Your task to perform on an android device: create a new album in the google photos Image 0: 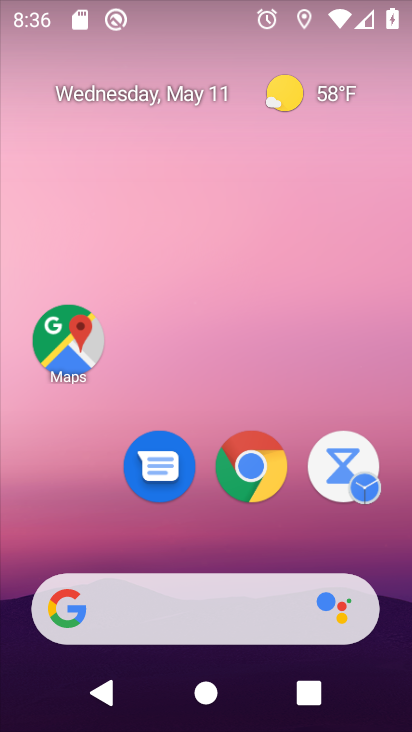
Step 0: drag from (86, 539) to (132, 8)
Your task to perform on an android device: create a new album in the google photos Image 1: 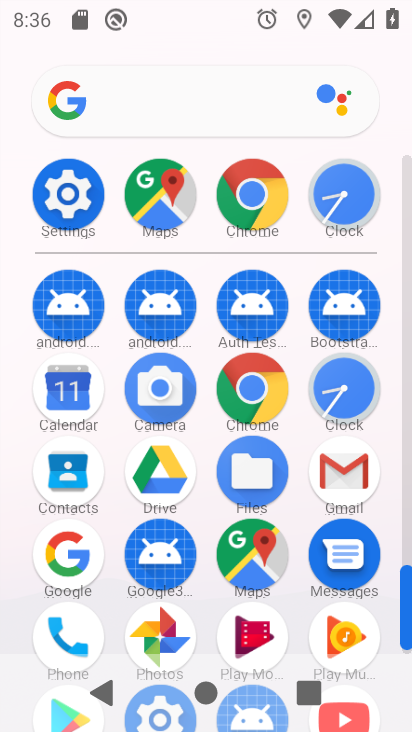
Step 1: click (168, 613)
Your task to perform on an android device: create a new album in the google photos Image 2: 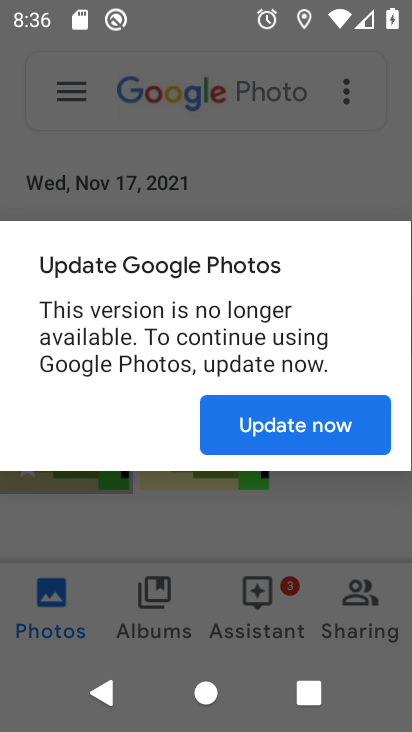
Step 2: click (159, 593)
Your task to perform on an android device: create a new album in the google photos Image 3: 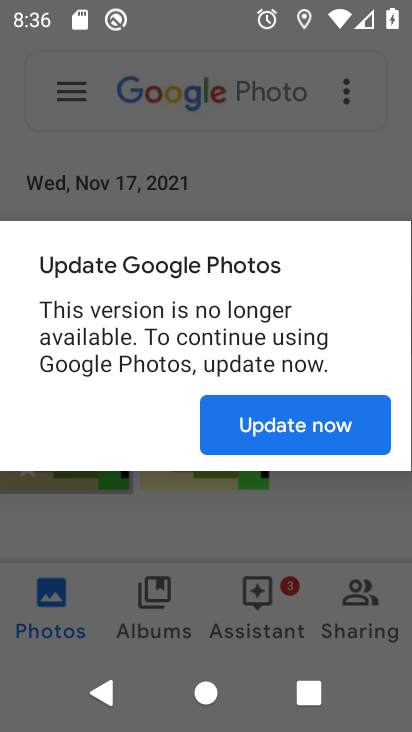
Step 3: click (159, 593)
Your task to perform on an android device: create a new album in the google photos Image 4: 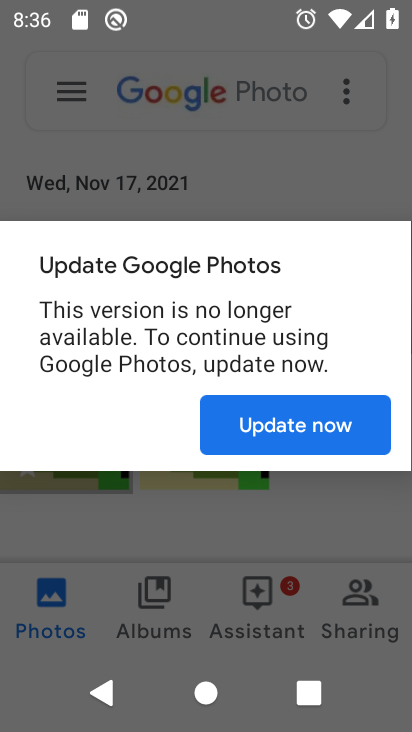
Step 4: press back button
Your task to perform on an android device: create a new album in the google photos Image 5: 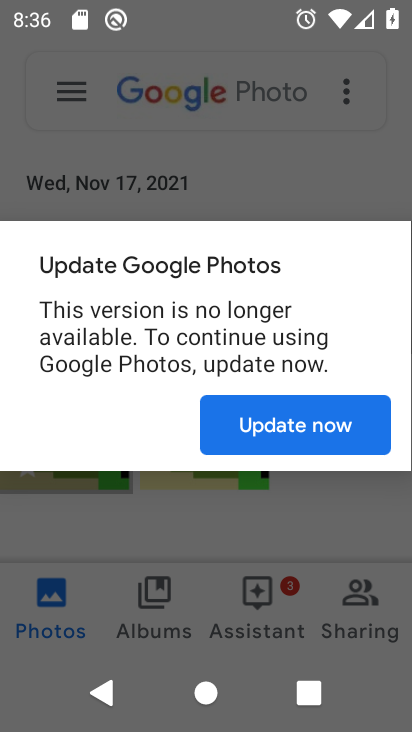
Step 5: click (308, 424)
Your task to perform on an android device: create a new album in the google photos Image 6: 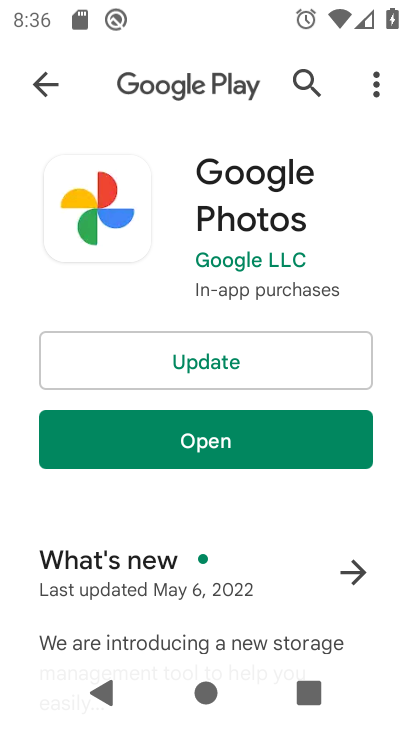
Step 6: click (320, 364)
Your task to perform on an android device: create a new album in the google photos Image 7: 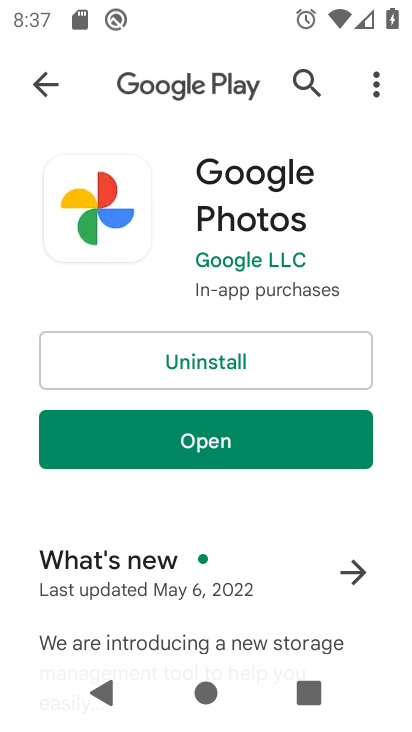
Step 7: click (78, 428)
Your task to perform on an android device: create a new album in the google photos Image 8: 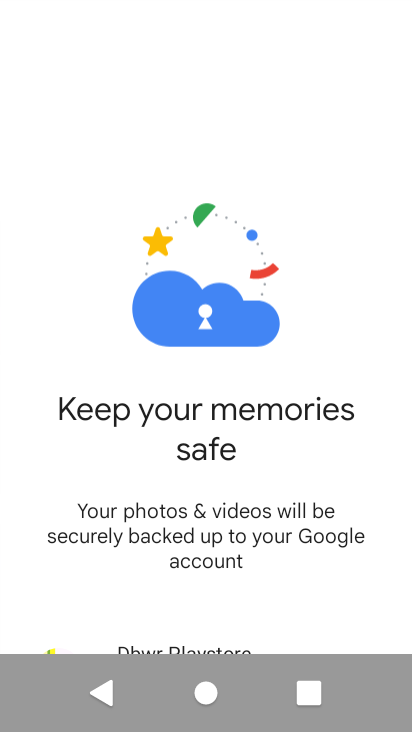
Step 8: drag from (242, 590) to (195, 241)
Your task to perform on an android device: create a new album in the google photos Image 9: 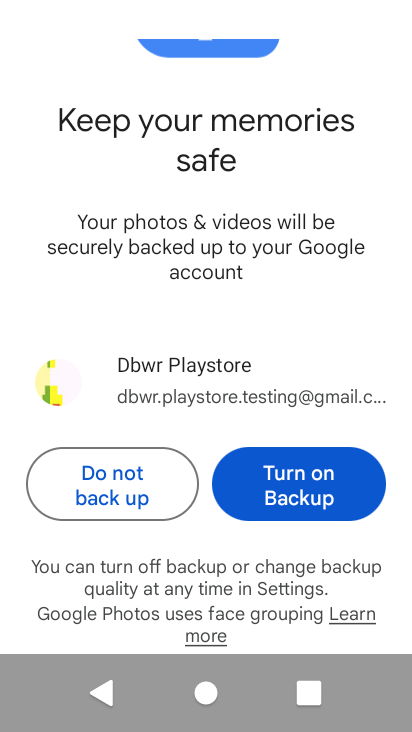
Step 9: click (237, 491)
Your task to perform on an android device: create a new album in the google photos Image 10: 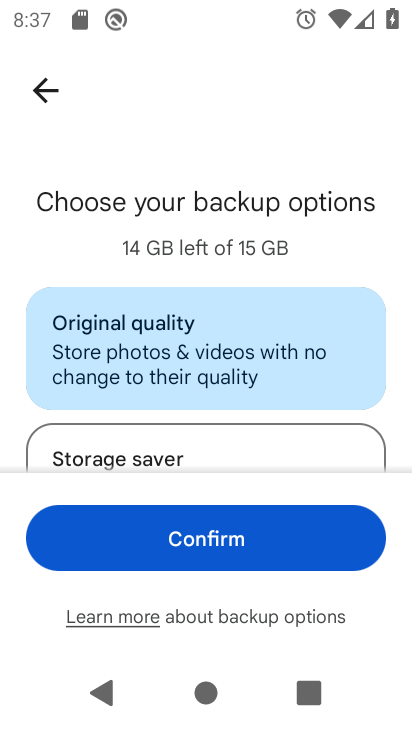
Step 10: click (207, 546)
Your task to perform on an android device: create a new album in the google photos Image 11: 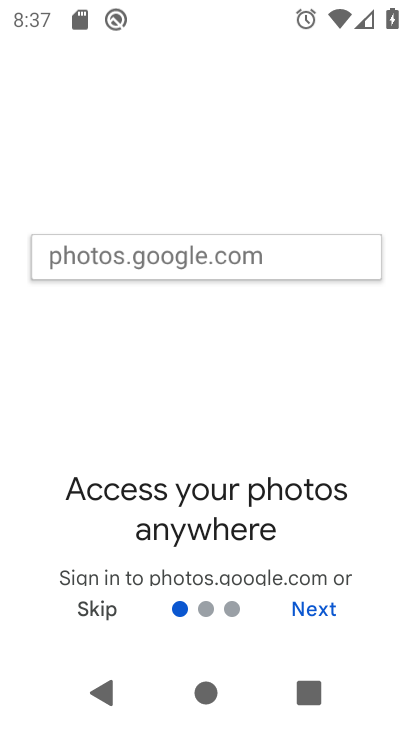
Step 11: click (307, 601)
Your task to perform on an android device: create a new album in the google photos Image 12: 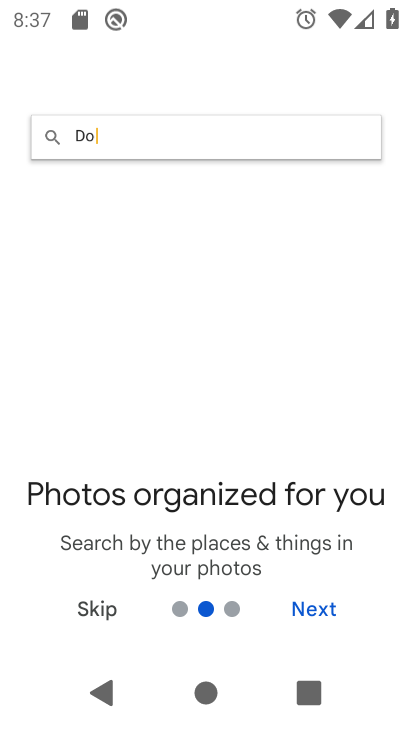
Step 12: click (307, 601)
Your task to perform on an android device: create a new album in the google photos Image 13: 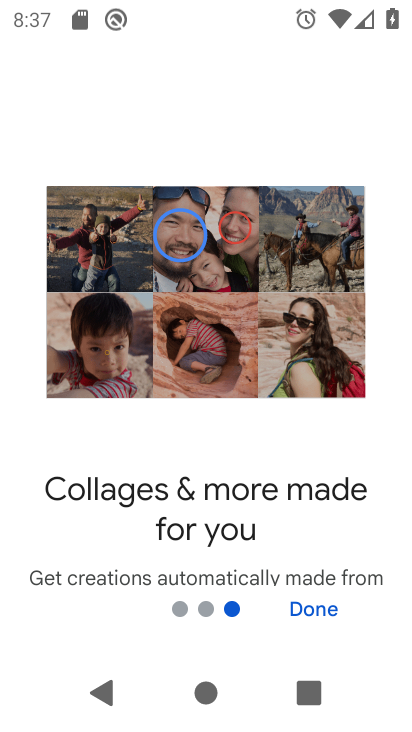
Step 13: click (307, 601)
Your task to perform on an android device: create a new album in the google photos Image 14: 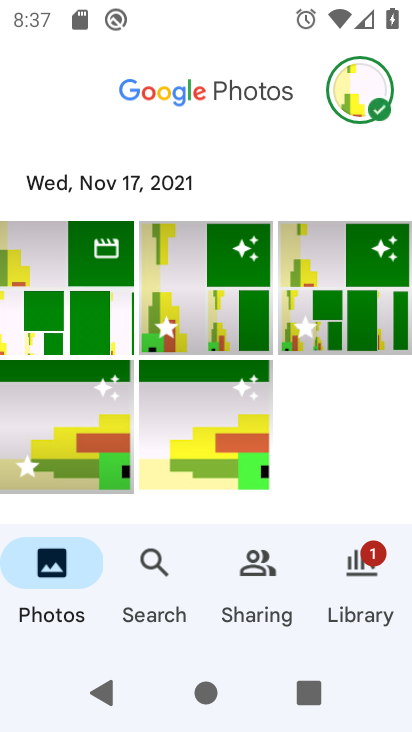
Step 14: click (355, 585)
Your task to perform on an android device: create a new album in the google photos Image 15: 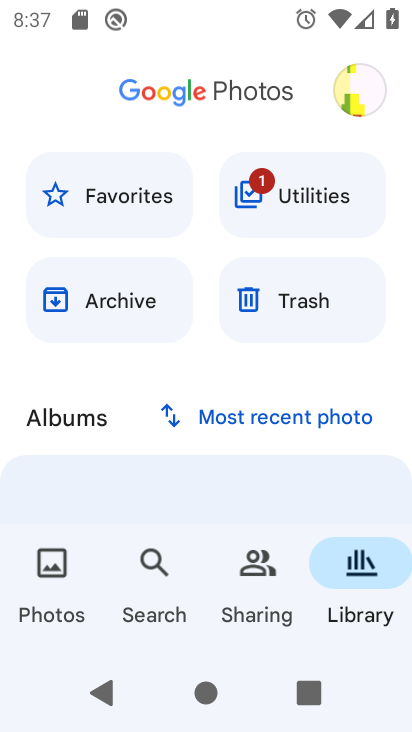
Step 15: drag from (211, 454) to (252, 94)
Your task to perform on an android device: create a new album in the google photos Image 16: 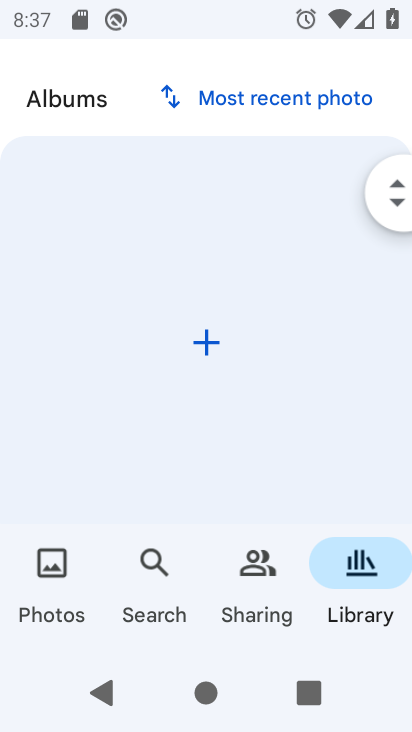
Step 16: click (208, 331)
Your task to perform on an android device: create a new album in the google photos Image 17: 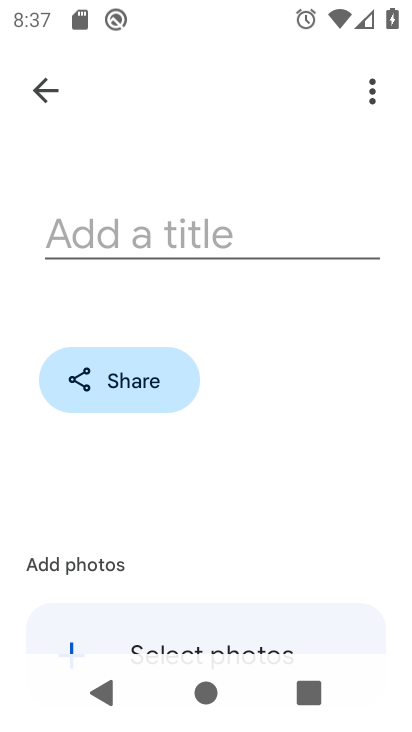
Step 17: click (164, 235)
Your task to perform on an android device: create a new album in the google photos Image 18: 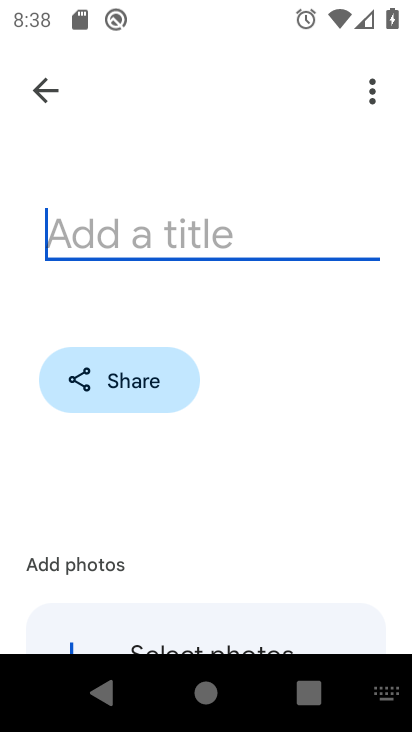
Step 18: type "qpalzmksownxiejdbvhfuryt"
Your task to perform on an android device: create a new album in the google photos Image 19: 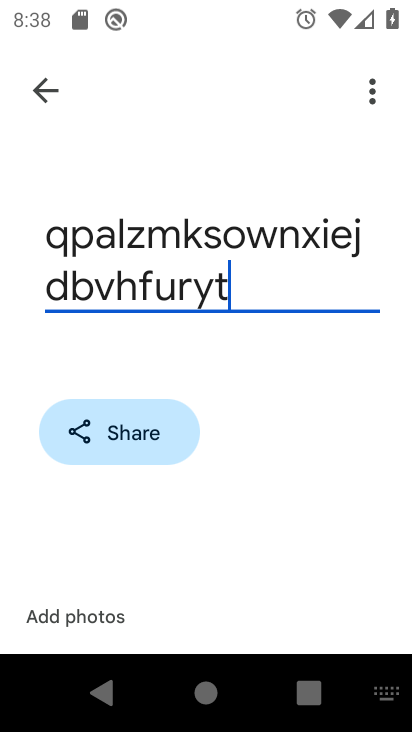
Step 19: drag from (130, 566) to (41, 171)
Your task to perform on an android device: create a new album in the google photos Image 20: 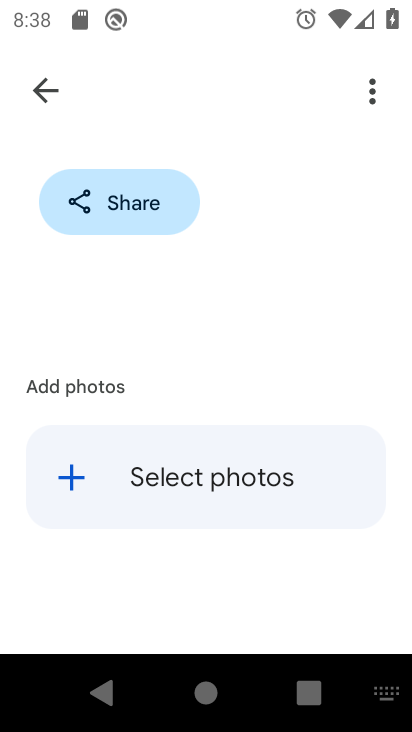
Step 20: click (161, 480)
Your task to perform on an android device: create a new album in the google photos Image 21: 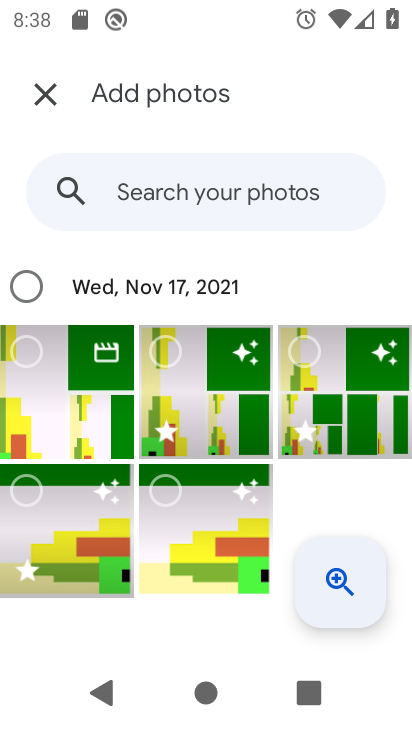
Step 21: click (104, 356)
Your task to perform on an android device: create a new album in the google photos Image 22: 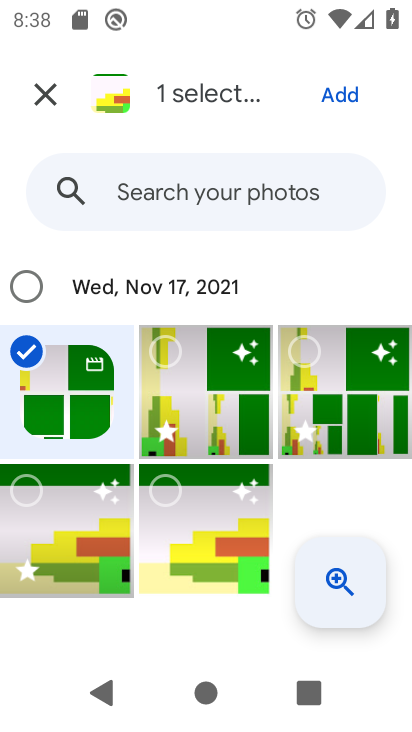
Step 22: click (351, 81)
Your task to perform on an android device: create a new album in the google photos Image 23: 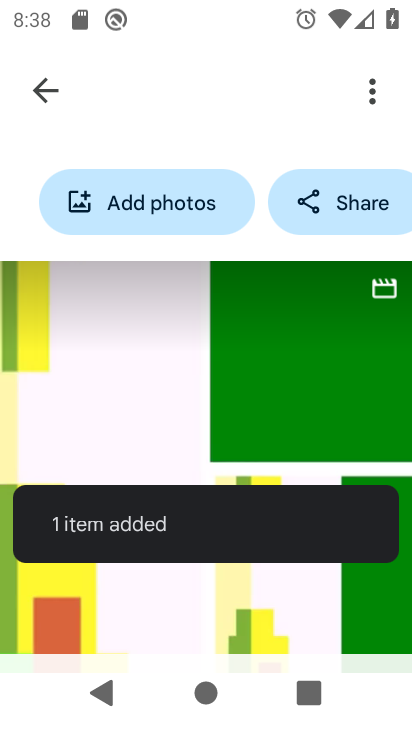
Step 23: task complete